Your task to perform on an android device: Search for Mexican restaurants on Maps Image 0: 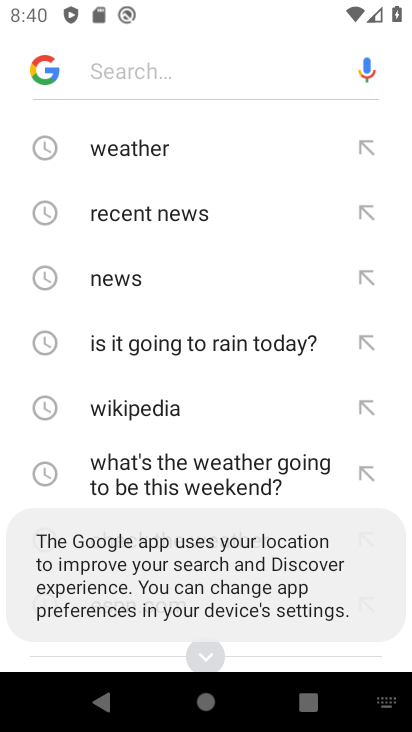
Step 0: press home button
Your task to perform on an android device: Search for Mexican restaurants on Maps Image 1: 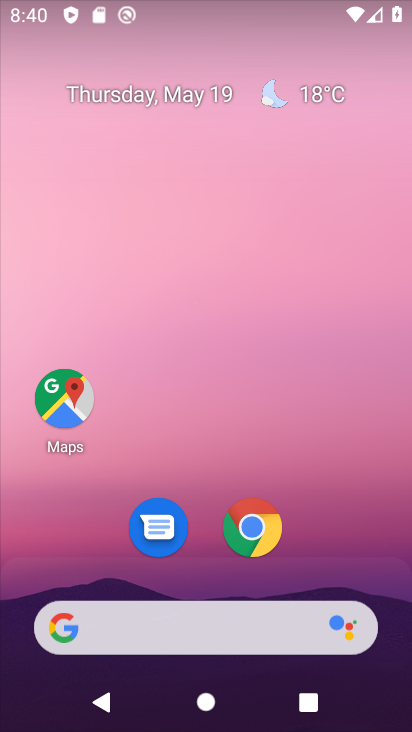
Step 1: click (69, 394)
Your task to perform on an android device: Search for Mexican restaurants on Maps Image 2: 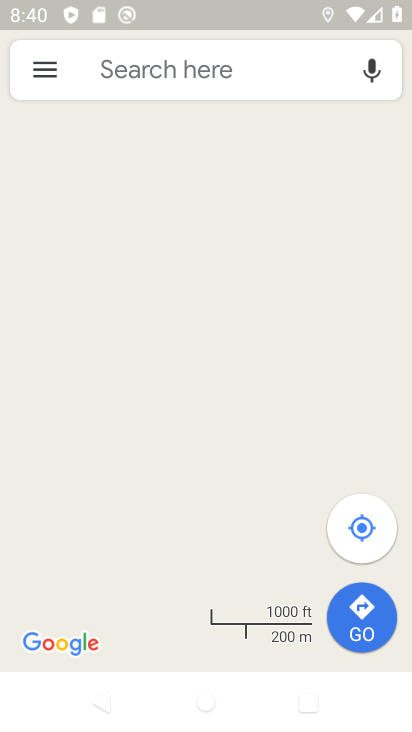
Step 2: click (214, 81)
Your task to perform on an android device: Search for Mexican restaurants on Maps Image 3: 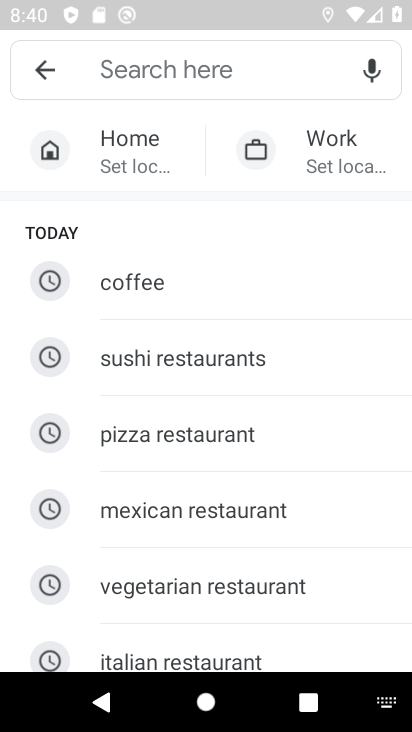
Step 3: type "mexican restaurants"
Your task to perform on an android device: Search for Mexican restaurants on Maps Image 4: 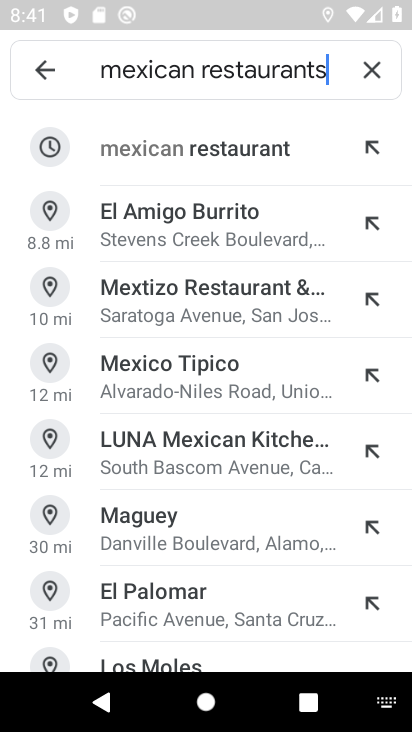
Step 4: click (254, 145)
Your task to perform on an android device: Search for Mexican restaurants on Maps Image 5: 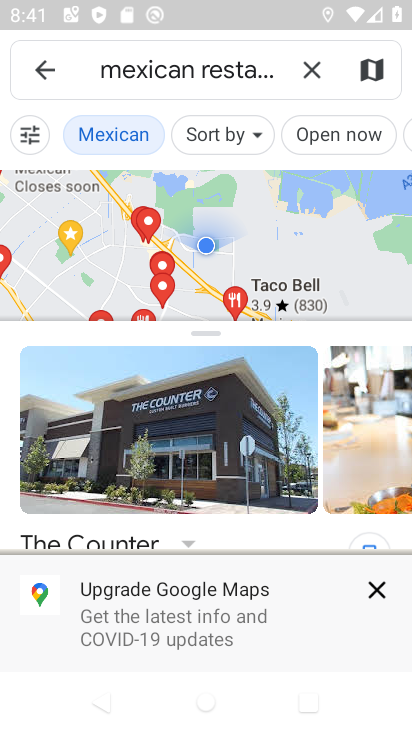
Step 5: click (373, 591)
Your task to perform on an android device: Search for Mexican restaurants on Maps Image 6: 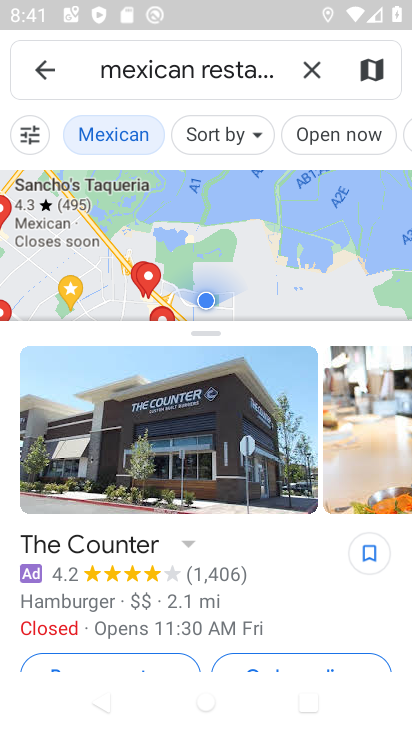
Step 6: task complete